Your task to perform on an android device: star an email in the gmail app Image 0: 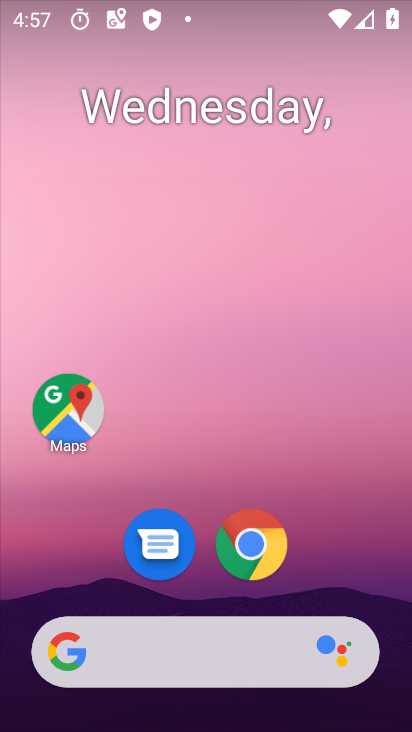
Step 0: drag from (213, 565) to (232, 8)
Your task to perform on an android device: star an email in the gmail app Image 1: 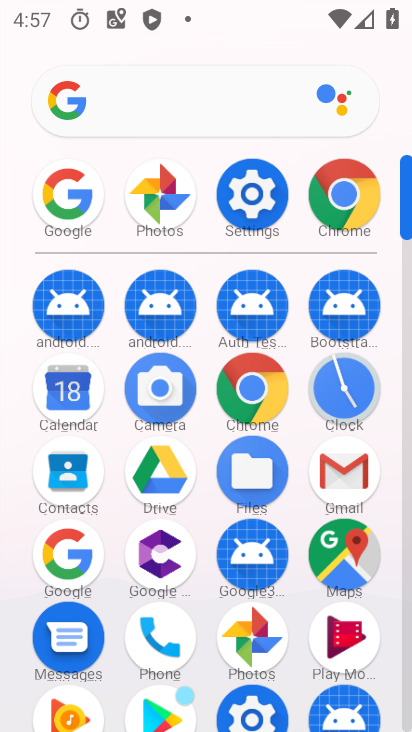
Step 1: click (354, 467)
Your task to perform on an android device: star an email in the gmail app Image 2: 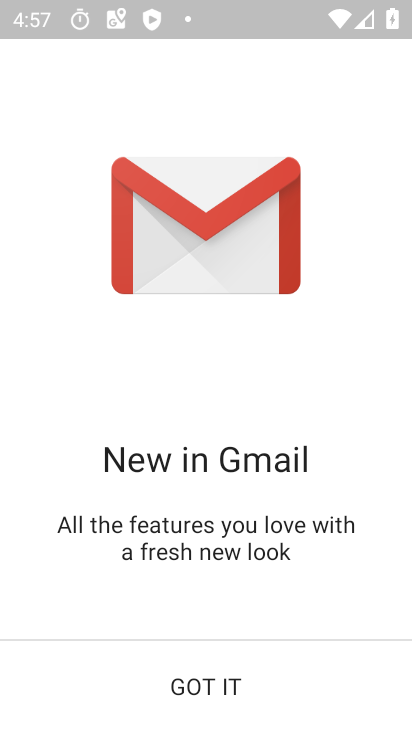
Step 2: click (222, 693)
Your task to perform on an android device: star an email in the gmail app Image 3: 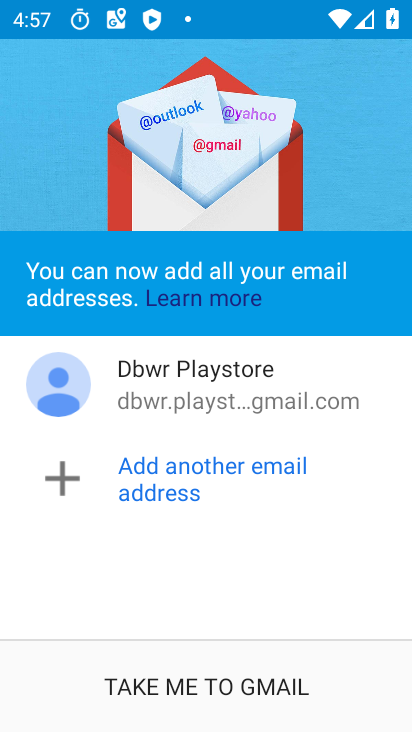
Step 3: click (212, 688)
Your task to perform on an android device: star an email in the gmail app Image 4: 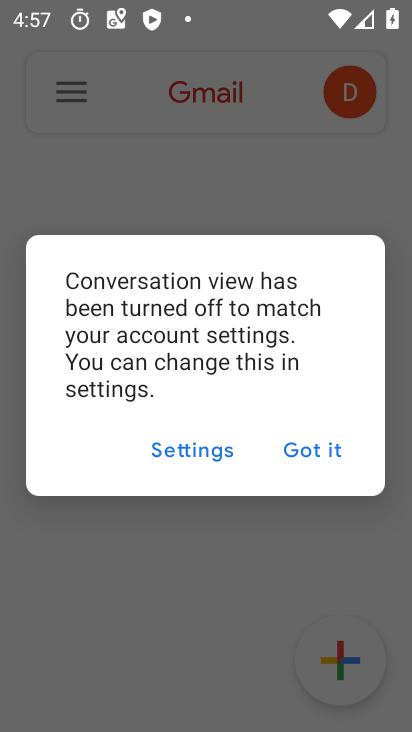
Step 4: click (330, 440)
Your task to perform on an android device: star an email in the gmail app Image 5: 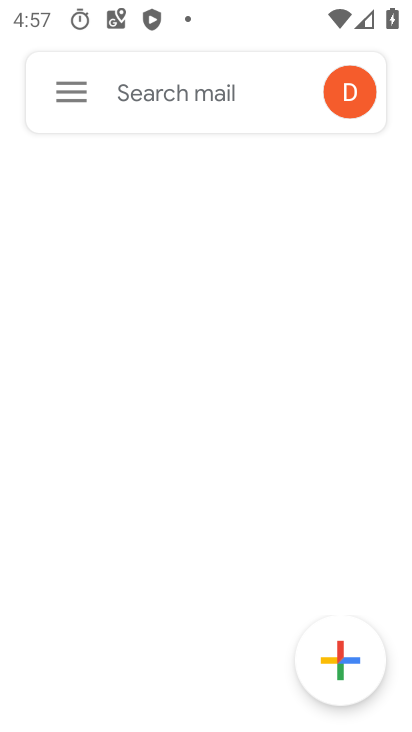
Step 5: click (73, 87)
Your task to perform on an android device: star an email in the gmail app Image 6: 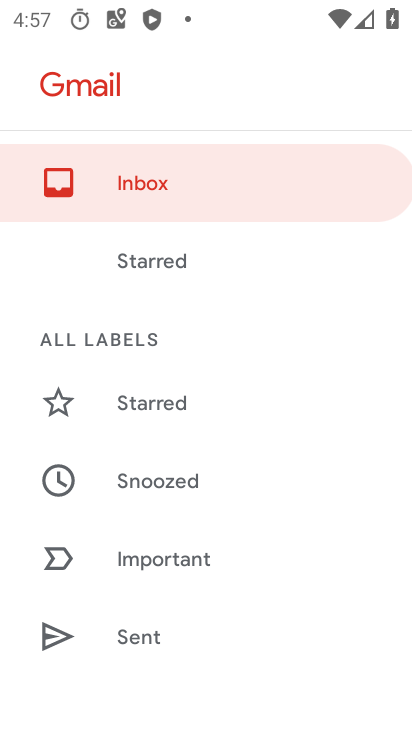
Step 6: click (163, 402)
Your task to perform on an android device: star an email in the gmail app Image 7: 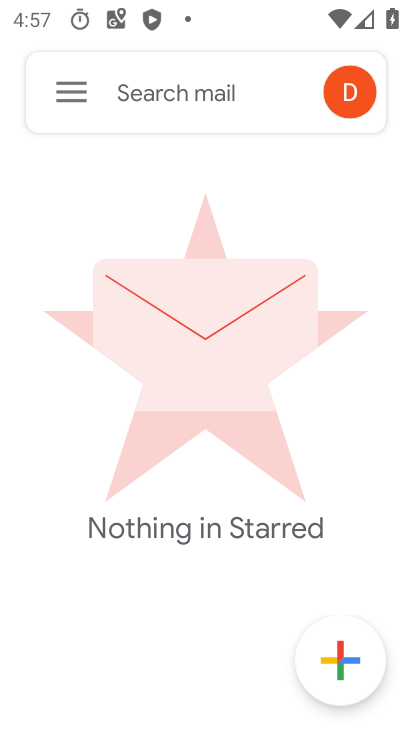
Step 7: task complete